Your task to perform on an android device: add a label to a message in the gmail app Image 0: 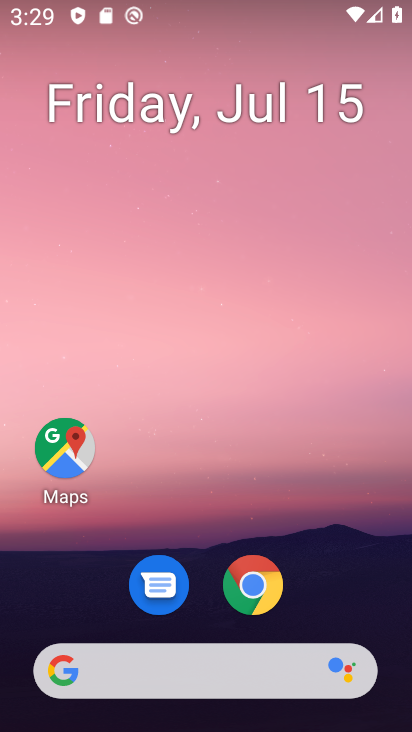
Step 0: drag from (204, 656) to (242, 153)
Your task to perform on an android device: add a label to a message in the gmail app Image 1: 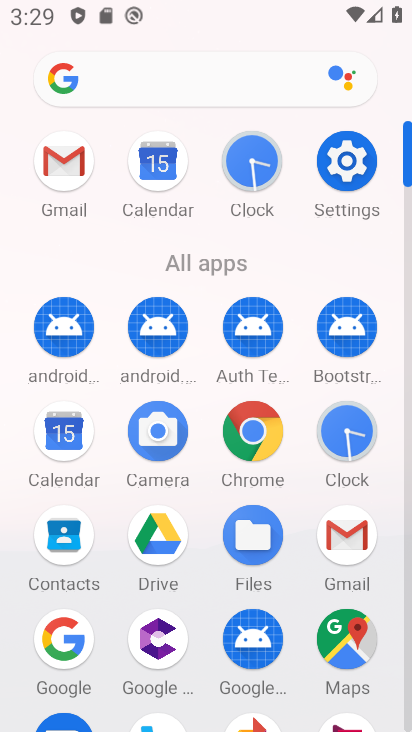
Step 1: click (344, 535)
Your task to perform on an android device: add a label to a message in the gmail app Image 2: 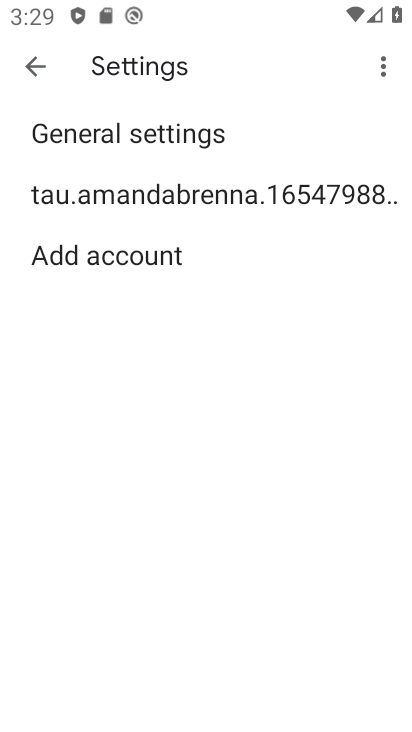
Step 2: click (41, 56)
Your task to perform on an android device: add a label to a message in the gmail app Image 3: 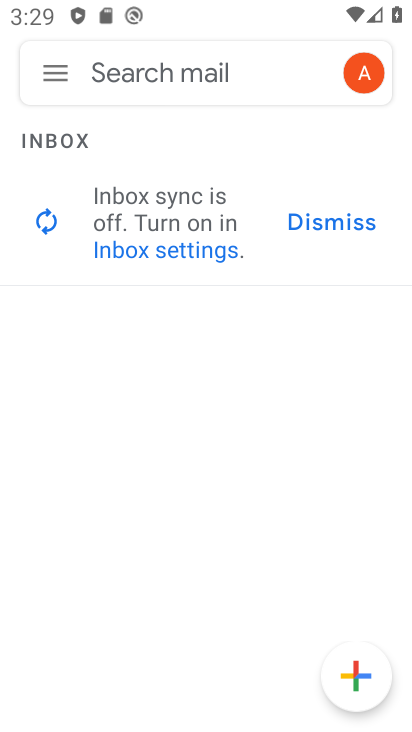
Step 3: task complete